Your task to perform on an android device: What's the weather going to be tomorrow? Image 0: 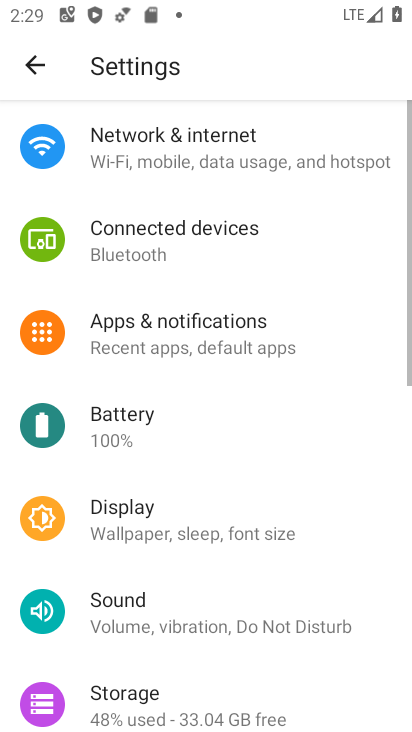
Step 0: press home button
Your task to perform on an android device: What's the weather going to be tomorrow? Image 1: 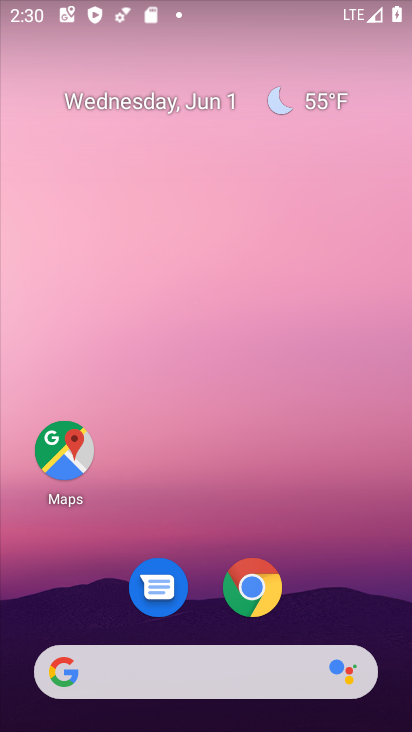
Step 1: click (310, 102)
Your task to perform on an android device: What's the weather going to be tomorrow? Image 2: 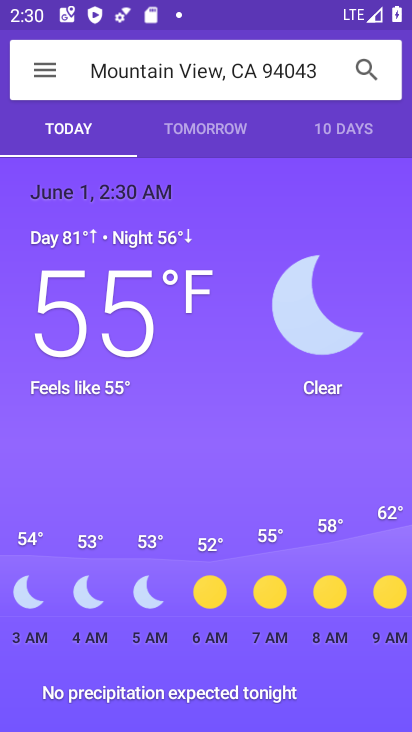
Step 2: click (183, 127)
Your task to perform on an android device: What's the weather going to be tomorrow? Image 3: 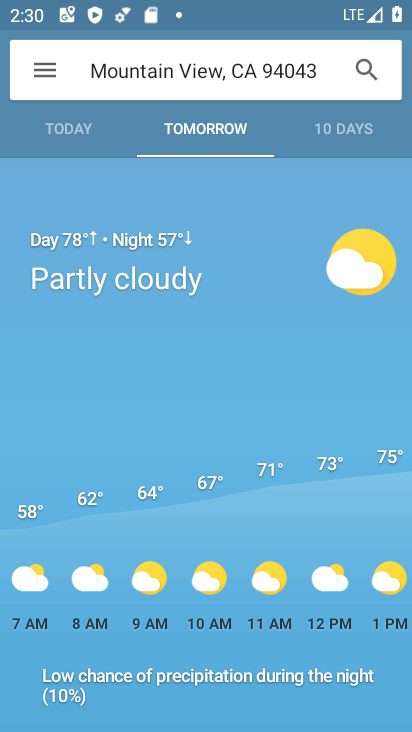
Step 3: task complete